Your task to perform on an android device: Open Google Image 0: 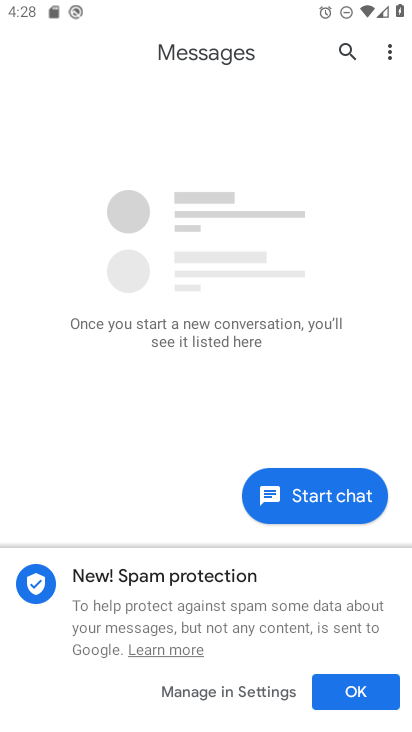
Step 0: press home button
Your task to perform on an android device: Open Google Image 1: 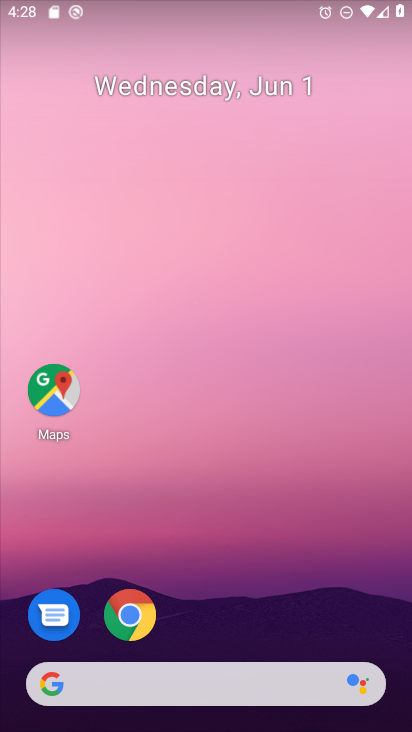
Step 1: drag from (221, 647) to (251, 29)
Your task to perform on an android device: Open Google Image 2: 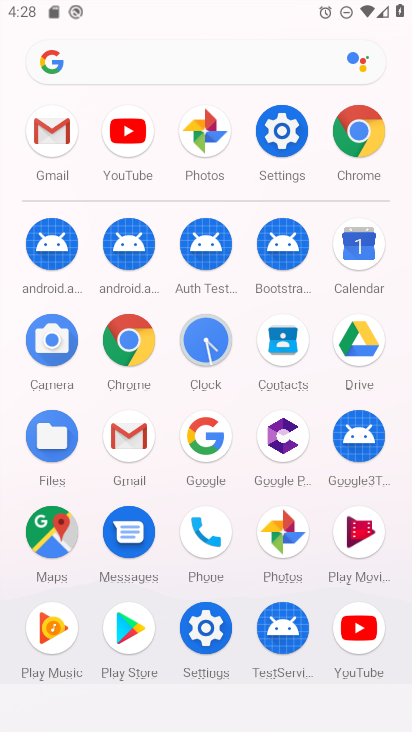
Step 2: click (202, 430)
Your task to perform on an android device: Open Google Image 3: 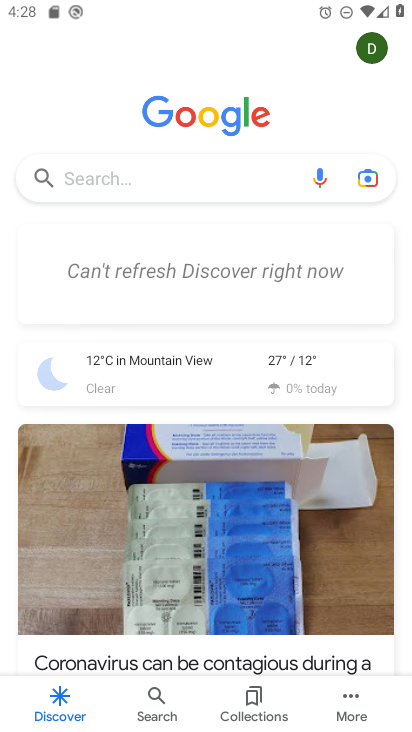
Step 3: task complete